Your task to perform on an android device: open app "LiveIn - Share Your Moment" (install if not already installed), go to login, and select forgot password Image 0: 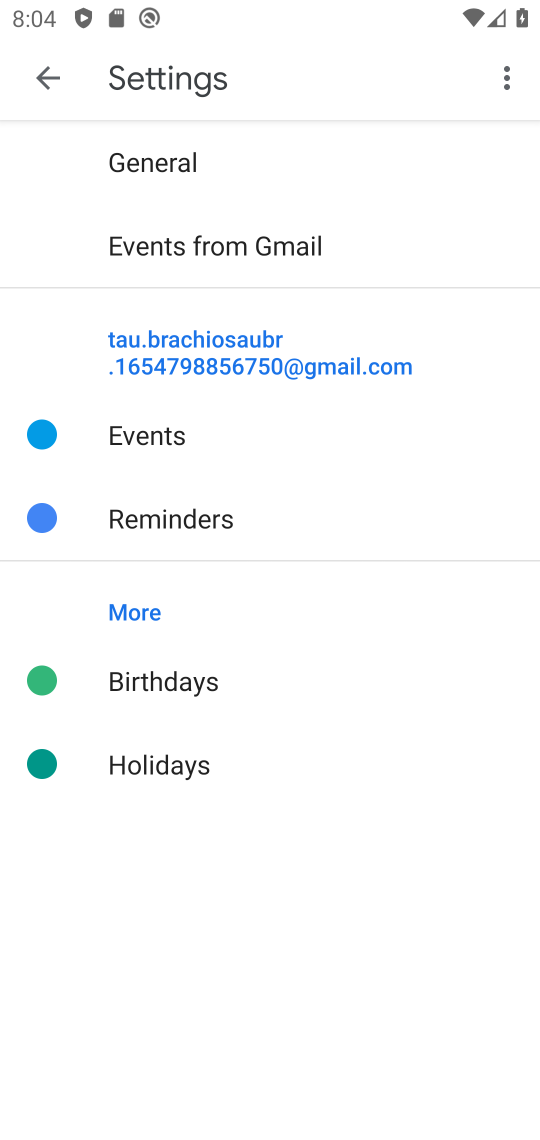
Step 0: press home button
Your task to perform on an android device: open app "LiveIn - Share Your Moment" (install if not already installed), go to login, and select forgot password Image 1: 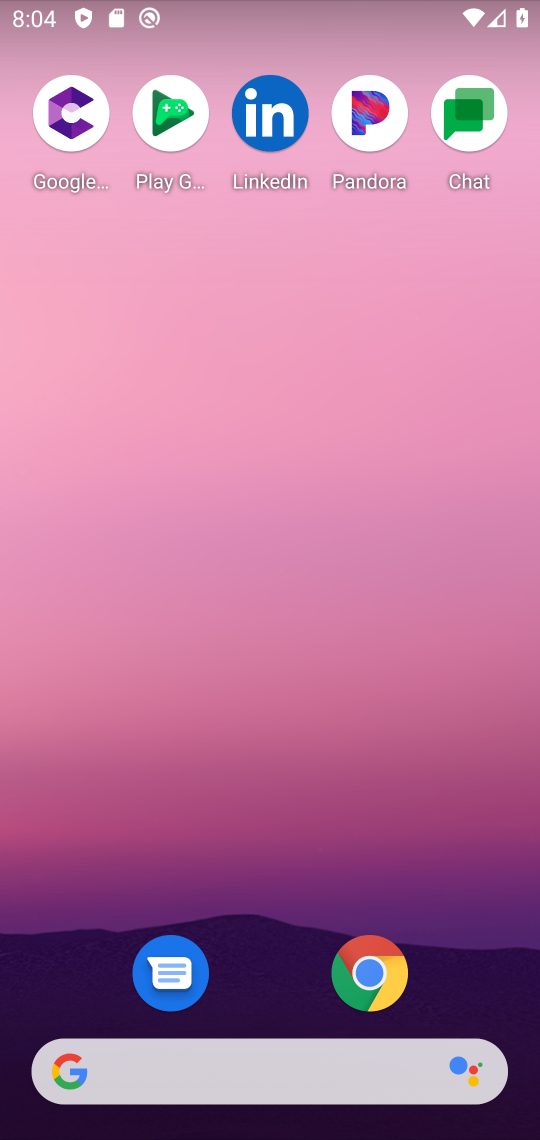
Step 1: drag from (272, 870) to (269, 262)
Your task to perform on an android device: open app "LiveIn - Share Your Moment" (install if not already installed), go to login, and select forgot password Image 2: 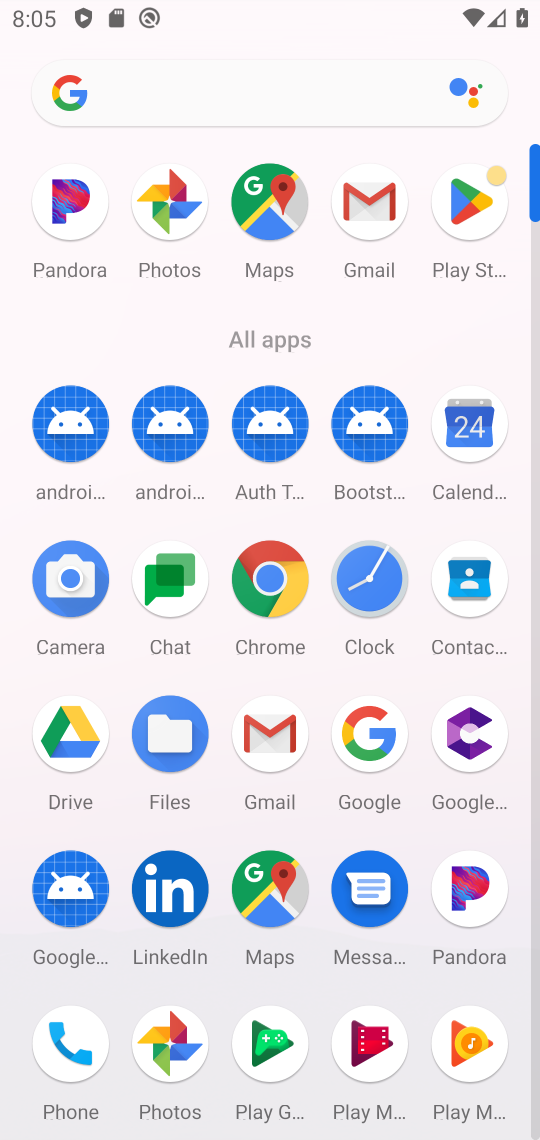
Step 2: click (473, 215)
Your task to perform on an android device: open app "LiveIn - Share Your Moment" (install if not already installed), go to login, and select forgot password Image 3: 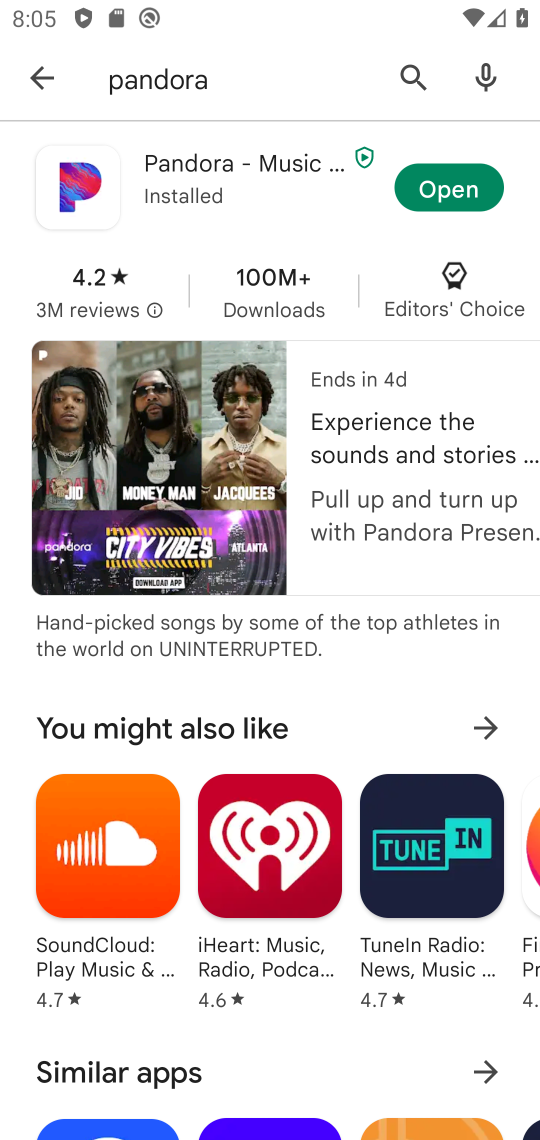
Step 3: click (41, 78)
Your task to perform on an android device: open app "LiveIn - Share Your Moment" (install if not already installed), go to login, and select forgot password Image 4: 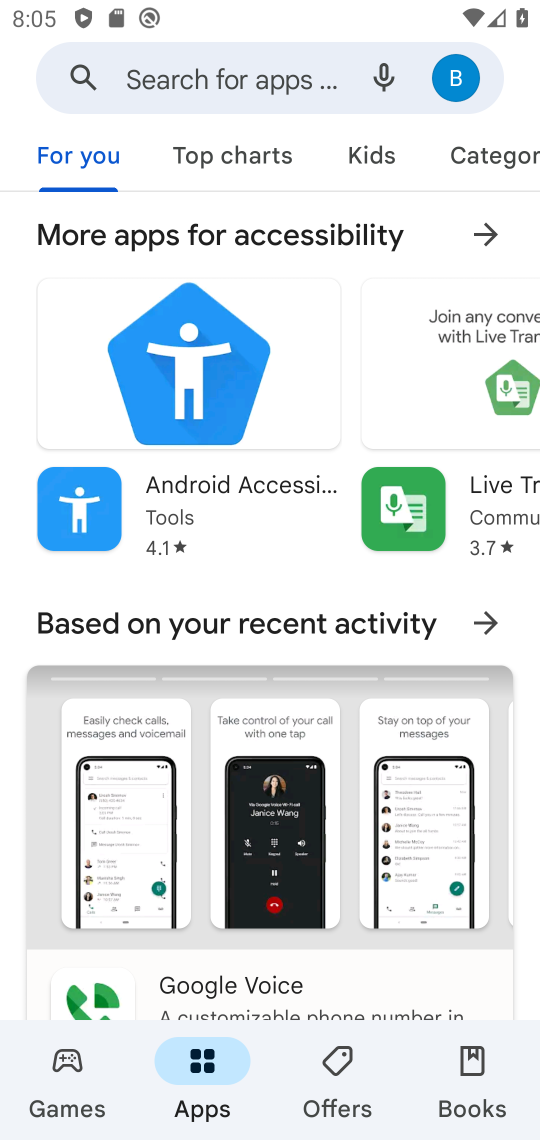
Step 4: click (296, 86)
Your task to perform on an android device: open app "LiveIn - Share Your Moment" (install if not already installed), go to login, and select forgot password Image 5: 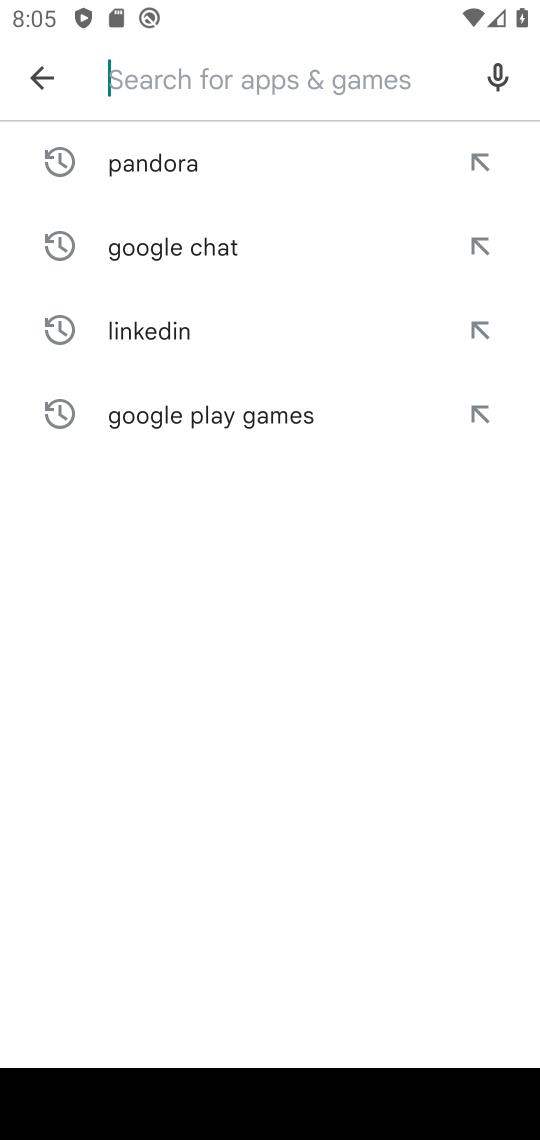
Step 5: type "LiveIn"
Your task to perform on an android device: open app "LiveIn - Share Your Moment" (install if not already installed), go to login, and select forgot password Image 6: 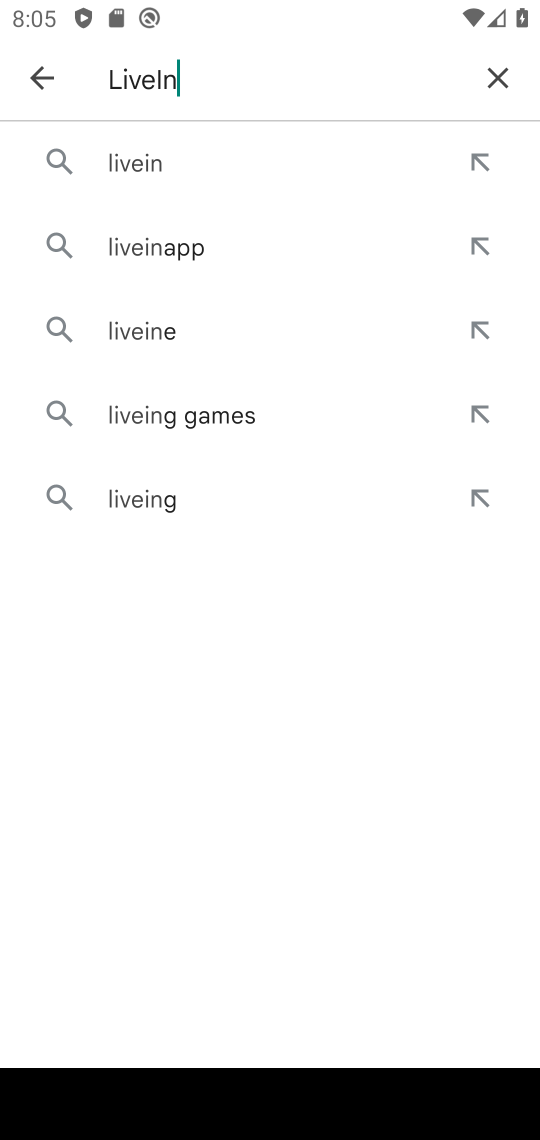
Step 6: click (166, 161)
Your task to perform on an android device: open app "LiveIn - Share Your Moment" (install if not already installed), go to login, and select forgot password Image 7: 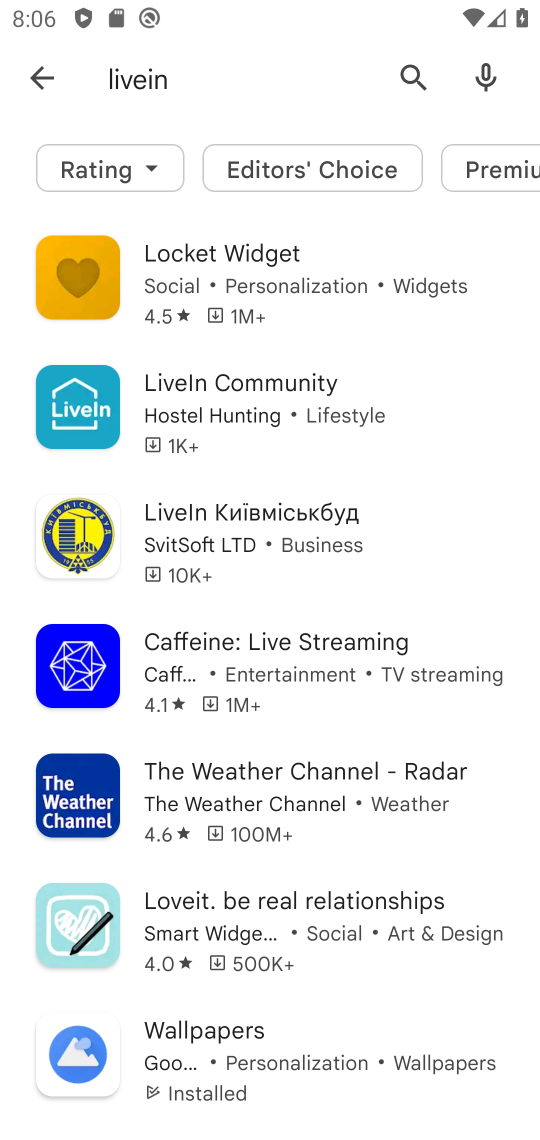
Step 7: task complete